Your task to perform on an android device: Go to Google maps Image 0: 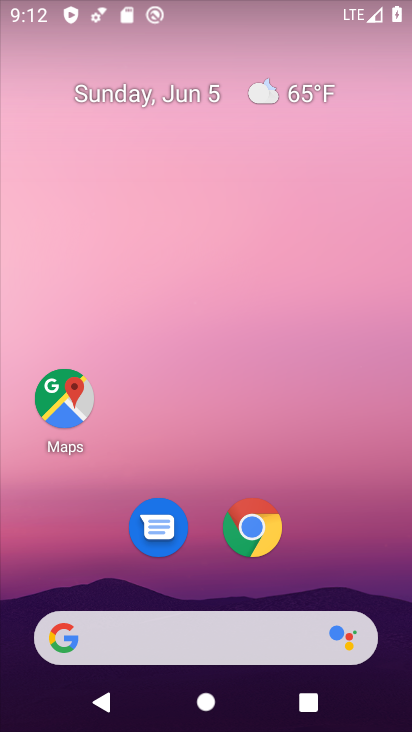
Step 0: click (64, 405)
Your task to perform on an android device: Go to Google maps Image 1: 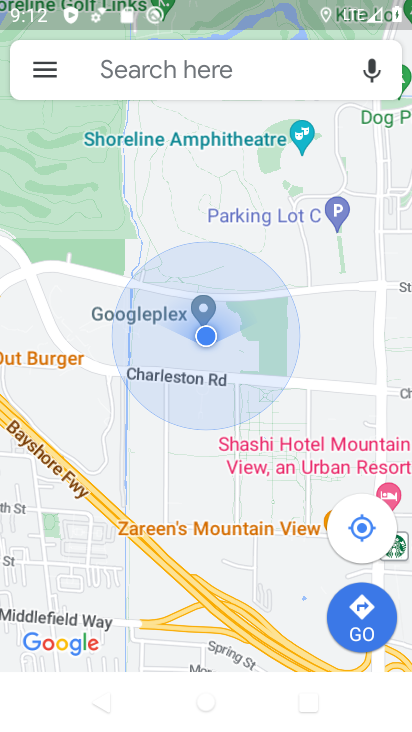
Step 1: task complete